Your task to perform on an android device: What is the recent news? Image 0: 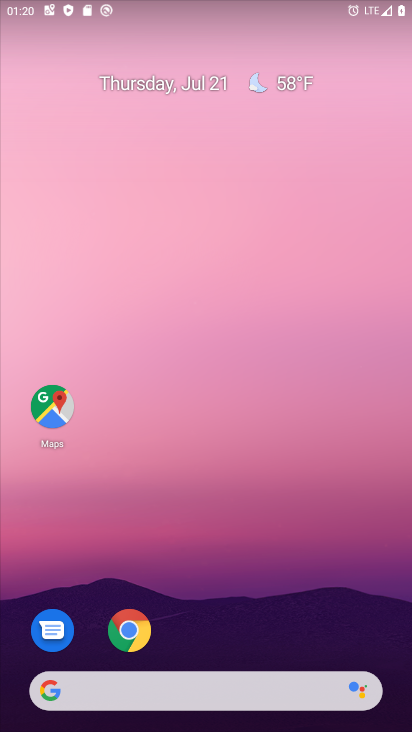
Step 0: click (205, 689)
Your task to perform on an android device: What is the recent news? Image 1: 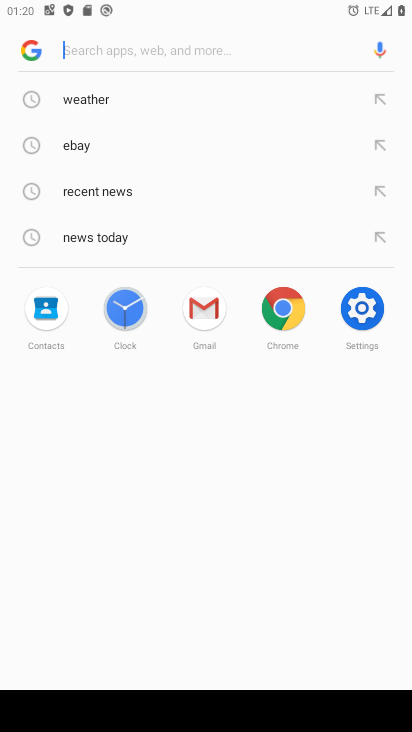
Step 1: click (43, 60)
Your task to perform on an android device: What is the recent news? Image 2: 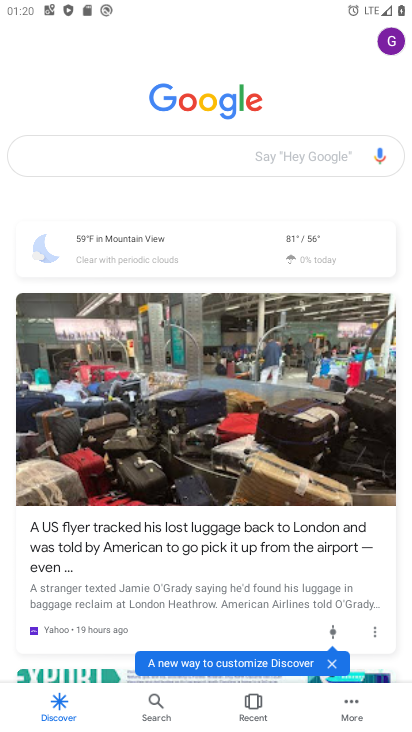
Step 2: task complete